Your task to perform on an android device: Go to wifi settings Image 0: 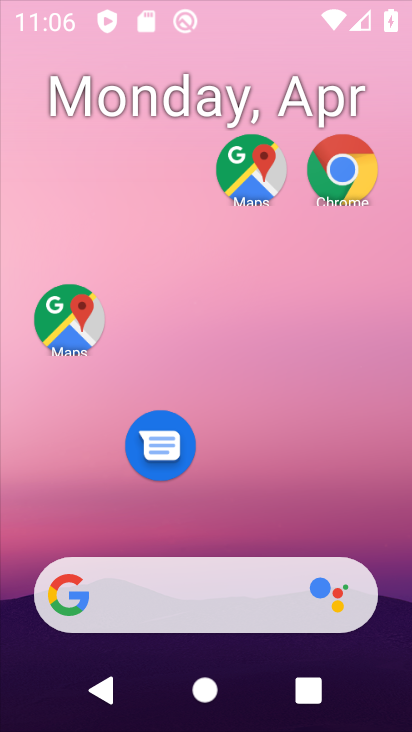
Step 0: drag from (248, 607) to (230, 225)
Your task to perform on an android device: Go to wifi settings Image 1: 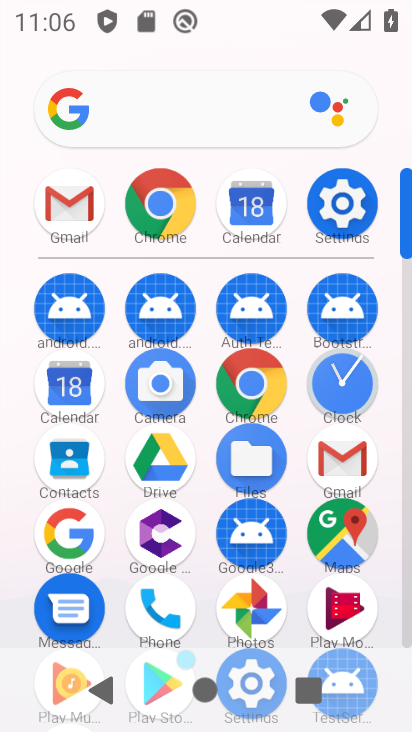
Step 1: click (322, 404)
Your task to perform on an android device: Go to wifi settings Image 2: 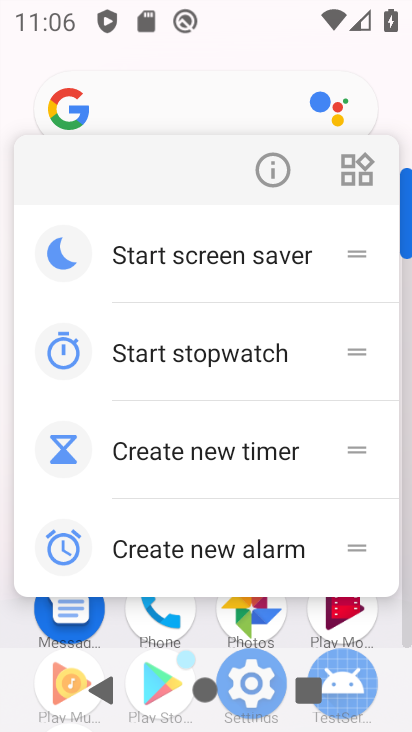
Step 2: click (381, 642)
Your task to perform on an android device: Go to wifi settings Image 3: 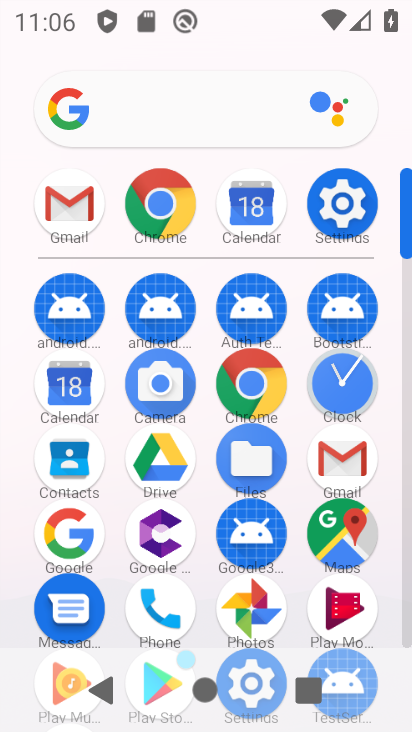
Step 3: click (330, 194)
Your task to perform on an android device: Go to wifi settings Image 4: 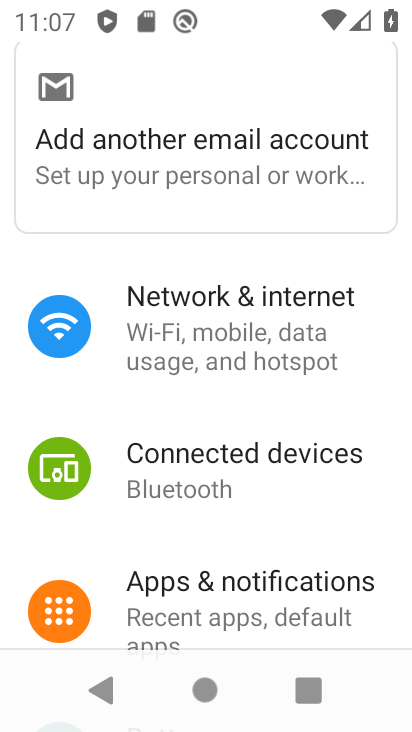
Step 4: click (209, 320)
Your task to perform on an android device: Go to wifi settings Image 5: 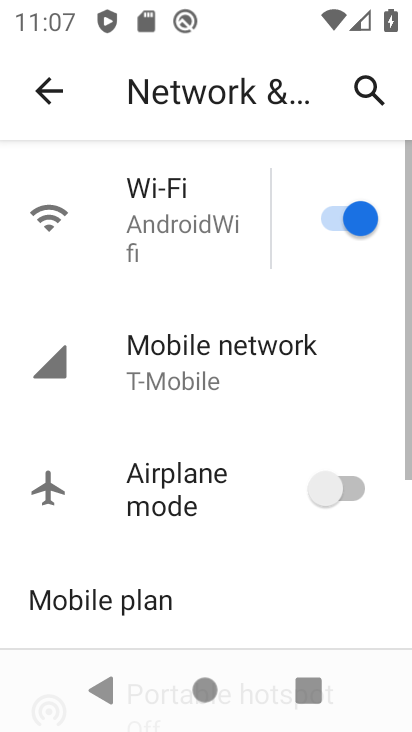
Step 5: click (156, 238)
Your task to perform on an android device: Go to wifi settings Image 6: 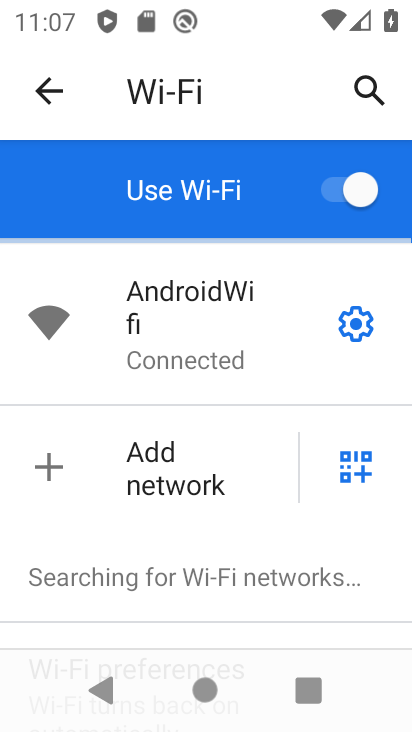
Step 6: task complete